Your task to perform on an android device: turn on data saver in the chrome app Image 0: 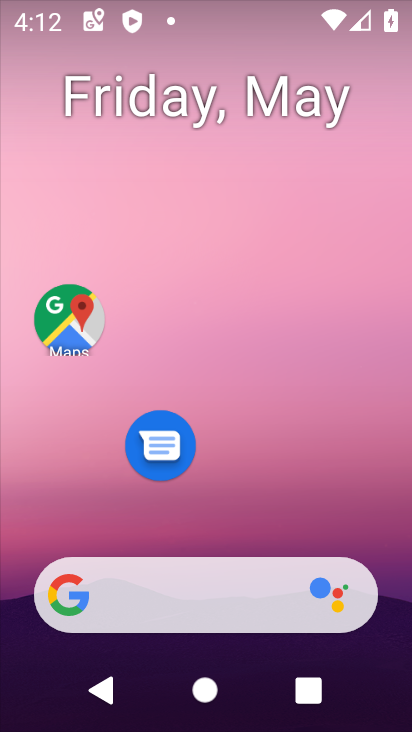
Step 0: drag from (233, 512) to (225, 6)
Your task to perform on an android device: turn on data saver in the chrome app Image 1: 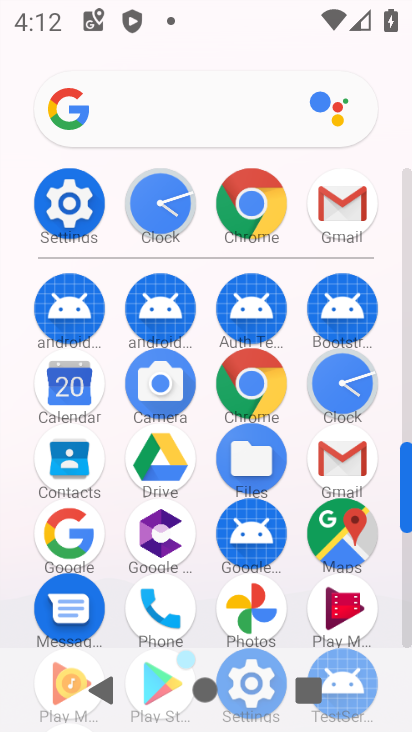
Step 1: click (254, 386)
Your task to perform on an android device: turn on data saver in the chrome app Image 2: 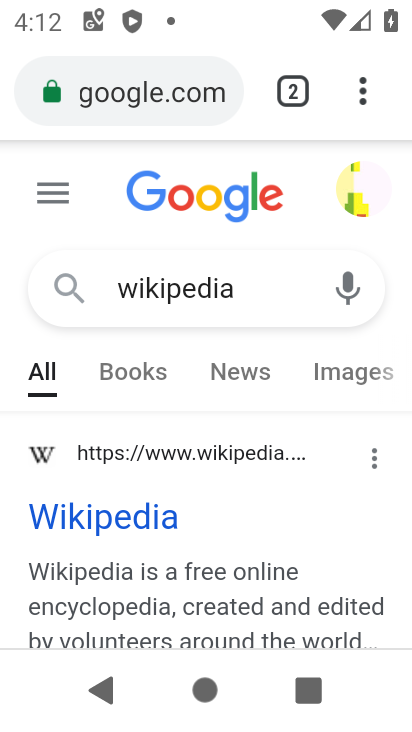
Step 2: click (360, 93)
Your task to perform on an android device: turn on data saver in the chrome app Image 3: 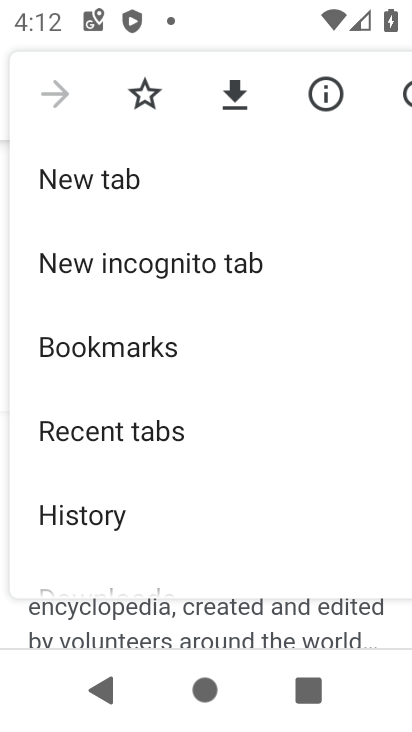
Step 3: drag from (143, 467) to (193, 211)
Your task to perform on an android device: turn on data saver in the chrome app Image 4: 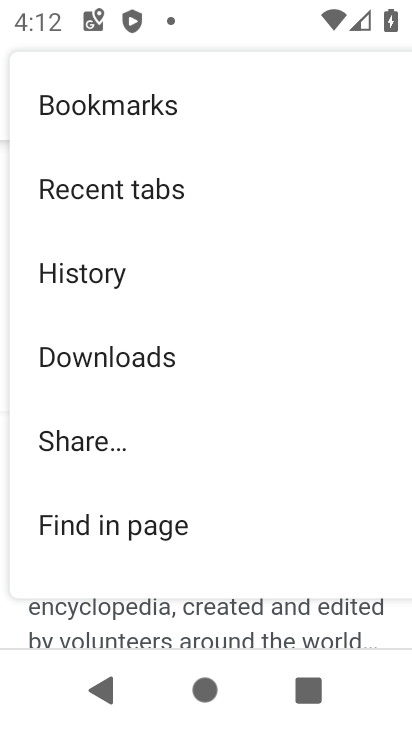
Step 4: drag from (95, 496) to (163, 141)
Your task to perform on an android device: turn on data saver in the chrome app Image 5: 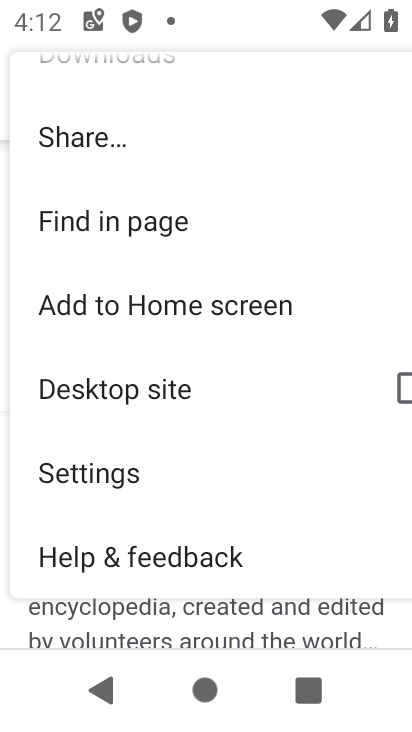
Step 5: drag from (100, 523) to (127, 375)
Your task to perform on an android device: turn on data saver in the chrome app Image 6: 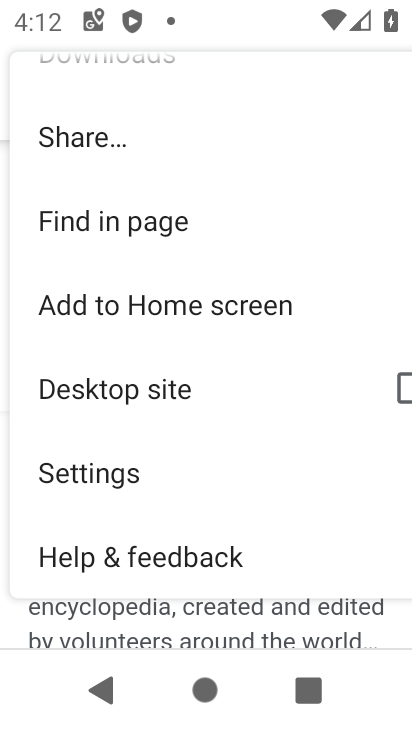
Step 6: click (105, 451)
Your task to perform on an android device: turn on data saver in the chrome app Image 7: 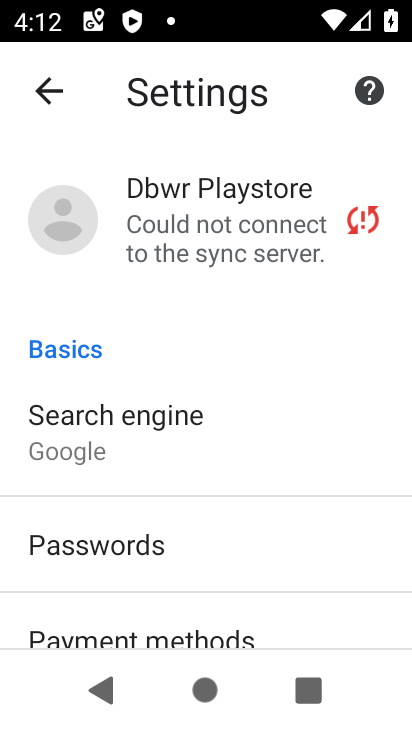
Step 7: drag from (177, 574) to (209, 312)
Your task to perform on an android device: turn on data saver in the chrome app Image 8: 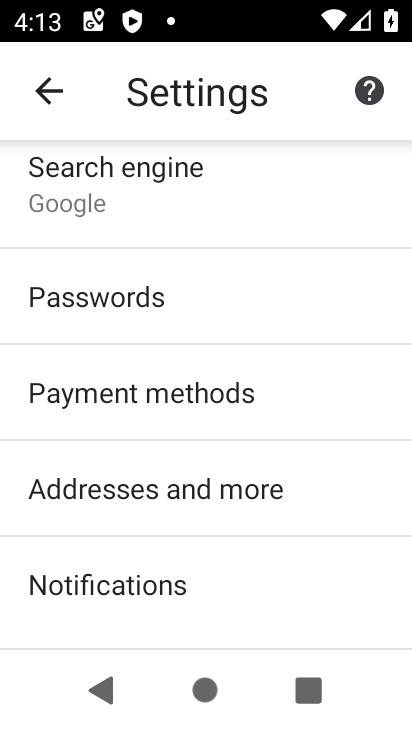
Step 8: drag from (199, 532) to (192, 29)
Your task to perform on an android device: turn on data saver in the chrome app Image 9: 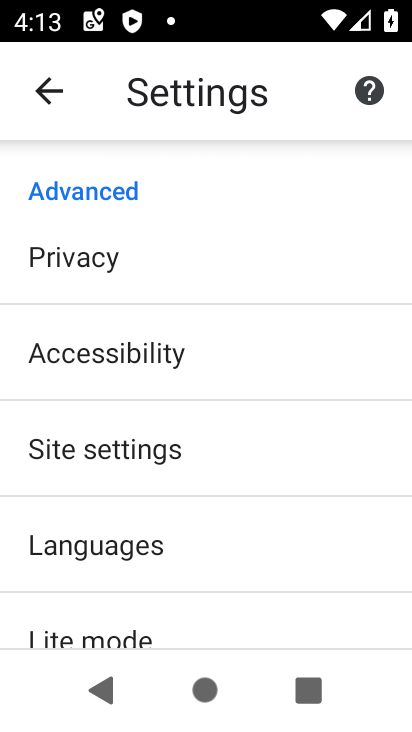
Step 9: click (104, 625)
Your task to perform on an android device: turn on data saver in the chrome app Image 10: 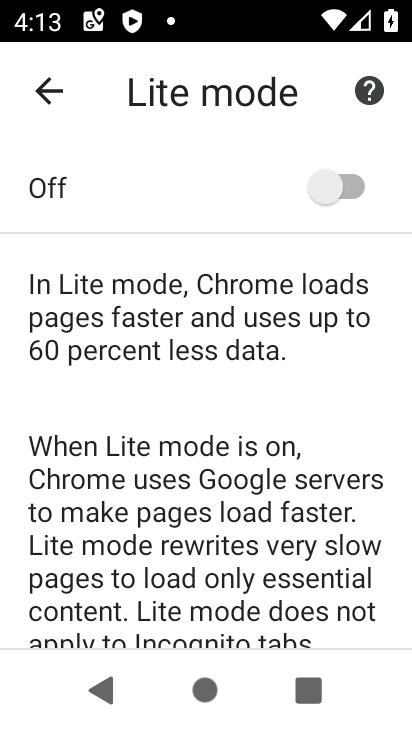
Step 10: click (356, 196)
Your task to perform on an android device: turn on data saver in the chrome app Image 11: 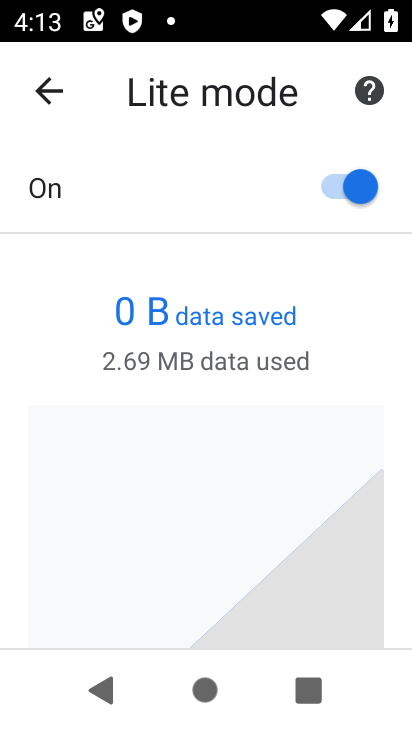
Step 11: task complete